Your task to perform on an android device: turn pop-ups off in chrome Image 0: 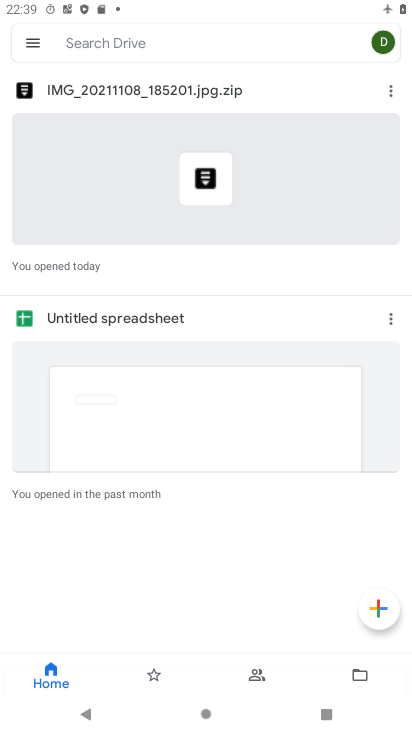
Step 0: press home button
Your task to perform on an android device: turn pop-ups off in chrome Image 1: 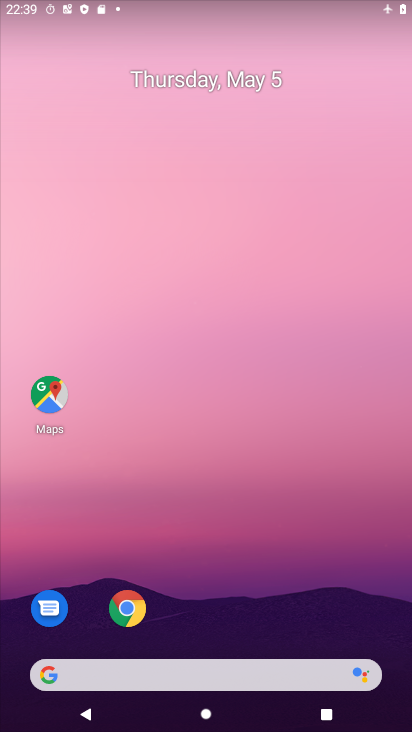
Step 1: drag from (346, 676) to (295, 0)
Your task to perform on an android device: turn pop-ups off in chrome Image 2: 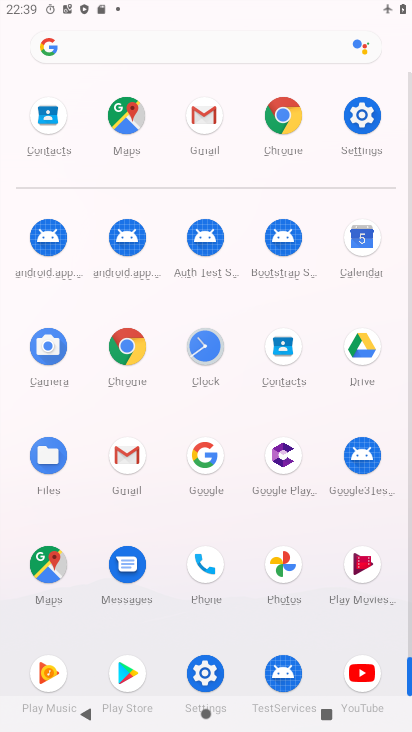
Step 2: click (288, 111)
Your task to perform on an android device: turn pop-ups off in chrome Image 3: 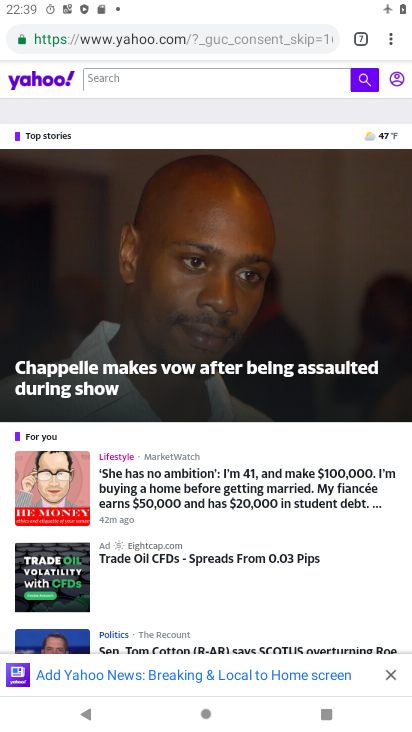
Step 3: click (387, 32)
Your task to perform on an android device: turn pop-ups off in chrome Image 4: 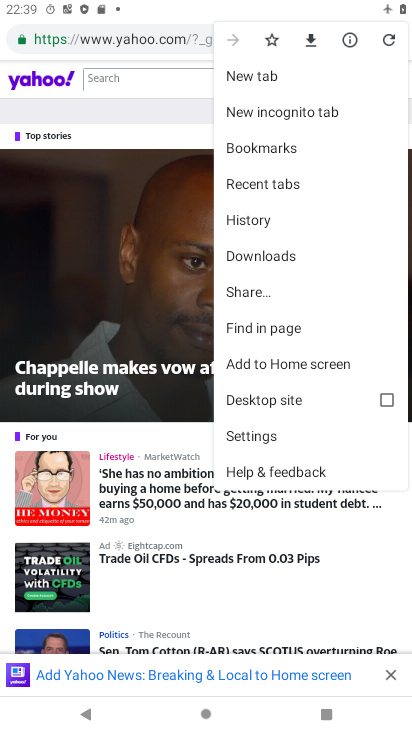
Step 4: click (261, 443)
Your task to perform on an android device: turn pop-ups off in chrome Image 5: 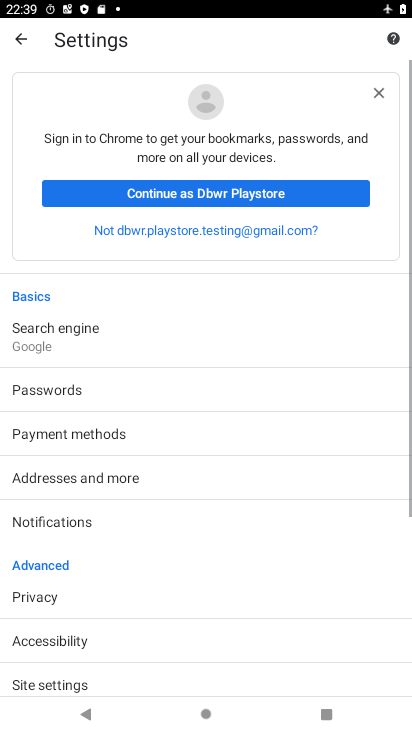
Step 5: drag from (113, 526) to (137, 152)
Your task to perform on an android device: turn pop-ups off in chrome Image 6: 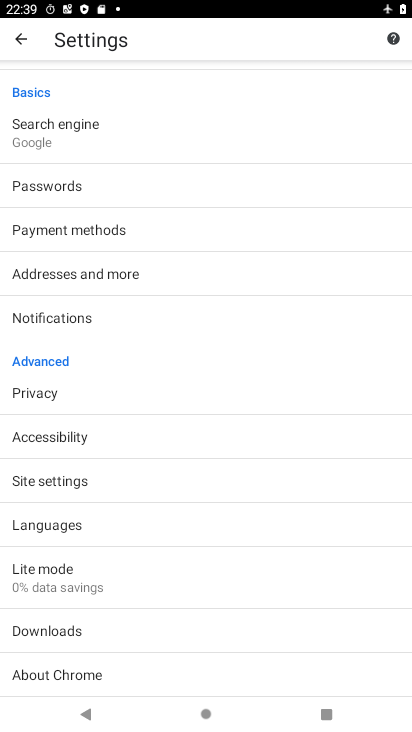
Step 6: click (85, 480)
Your task to perform on an android device: turn pop-ups off in chrome Image 7: 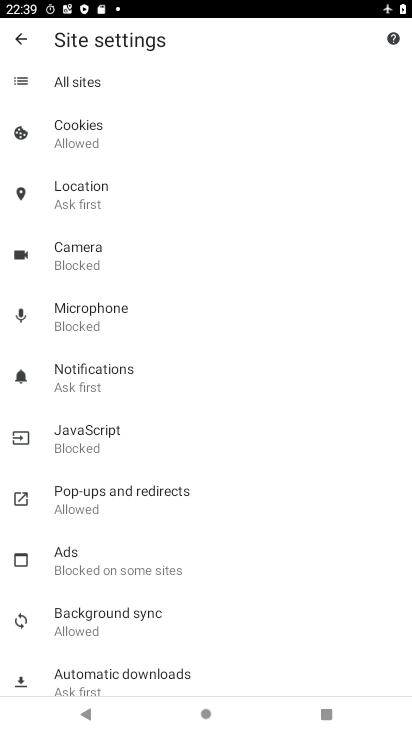
Step 7: click (146, 494)
Your task to perform on an android device: turn pop-ups off in chrome Image 8: 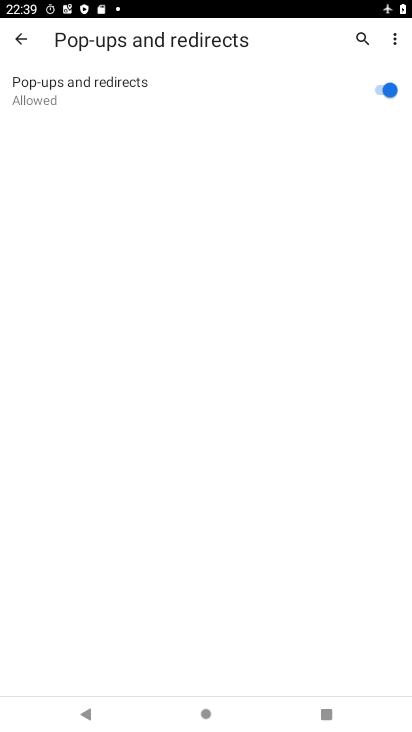
Step 8: click (385, 91)
Your task to perform on an android device: turn pop-ups off in chrome Image 9: 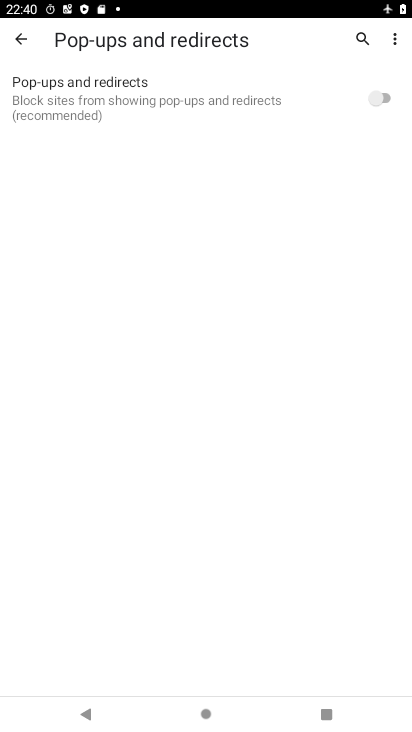
Step 9: task complete